Your task to perform on an android device: toggle translation in the chrome app Image 0: 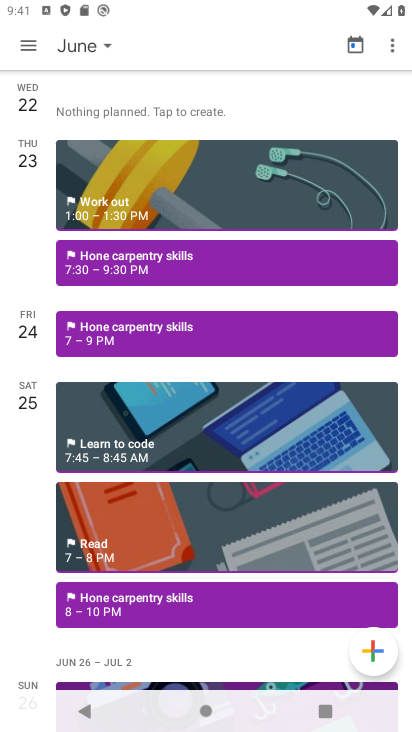
Step 0: press home button
Your task to perform on an android device: toggle translation in the chrome app Image 1: 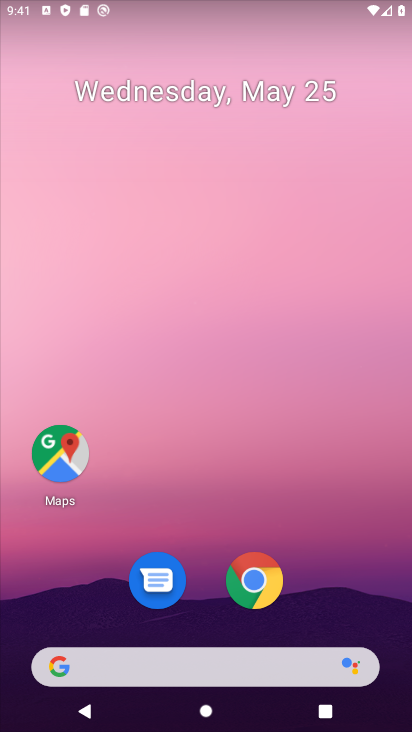
Step 1: click (251, 572)
Your task to perform on an android device: toggle translation in the chrome app Image 2: 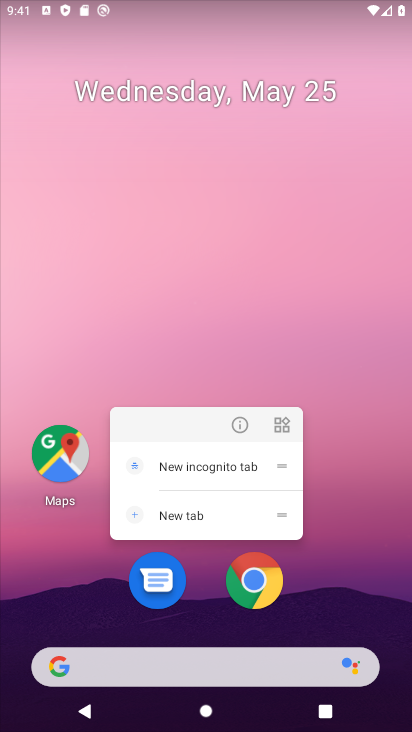
Step 2: click (269, 590)
Your task to perform on an android device: toggle translation in the chrome app Image 3: 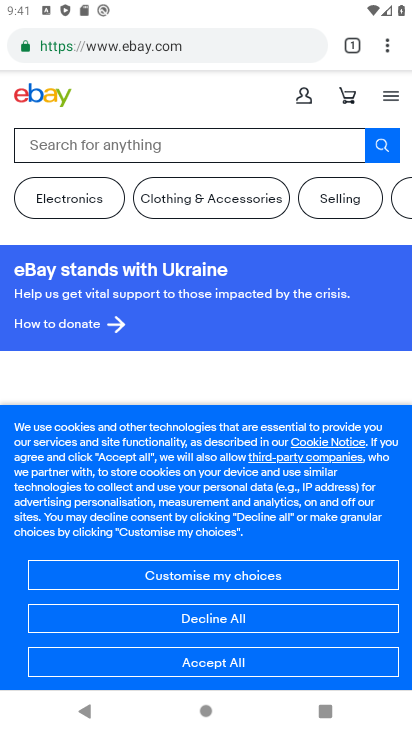
Step 3: click (380, 44)
Your task to perform on an android device: toggle translation in the chrome app Image 4: 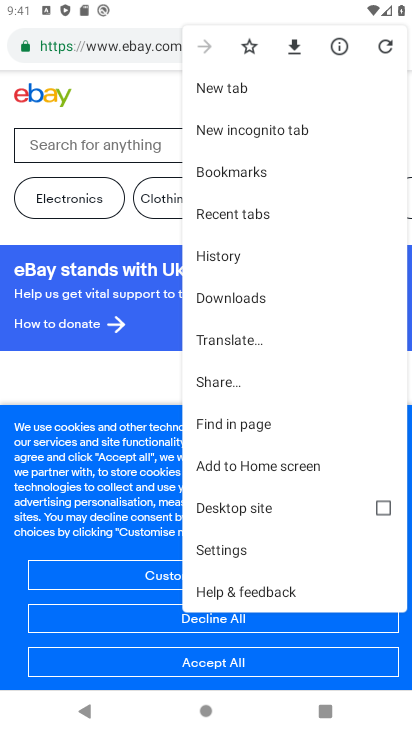
Step 4: click (252, 340)
Your task to perform on an android device: toggle translation in the chrome app Image 5: 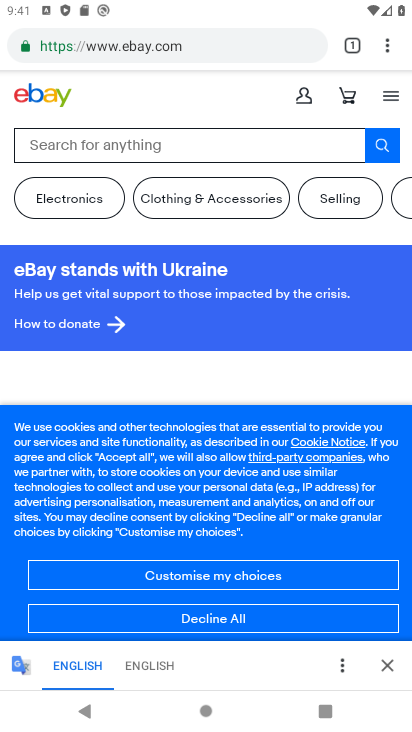
Step 5: click (393, 47)
Your task to perform on an android device: toggle translation in the chrome app Image 6: 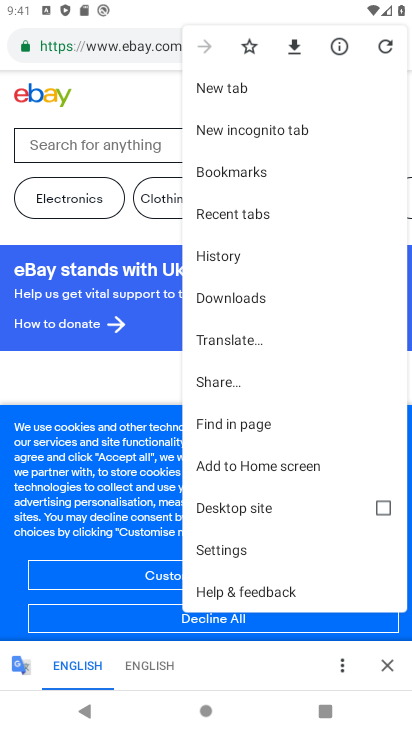
Step 6: click (236, 543)
Your task to perform on an android device: toggle translation in the chrome app Image 7: 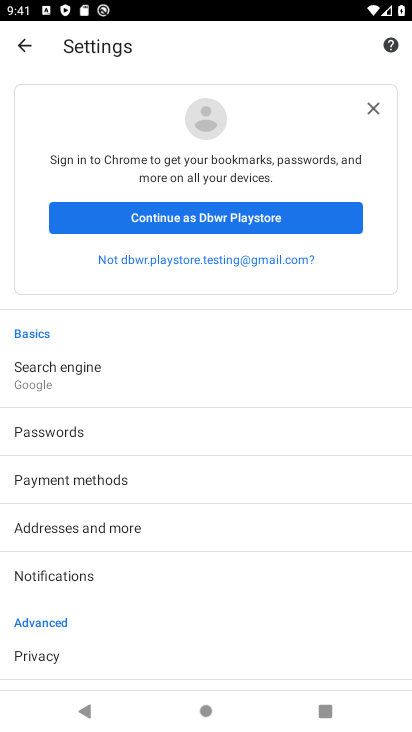
Step 7: drag from (39, 389) to (151, 114)
Your task to perform on an android device: toggle translation in the chrome app Image 8: 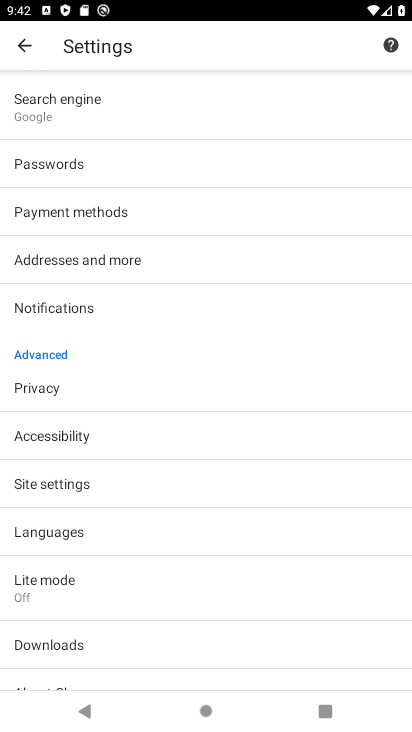
Step 8: click (85, 522)
Your task to perform on an android device: toggle translation in the chrome app Image 9: 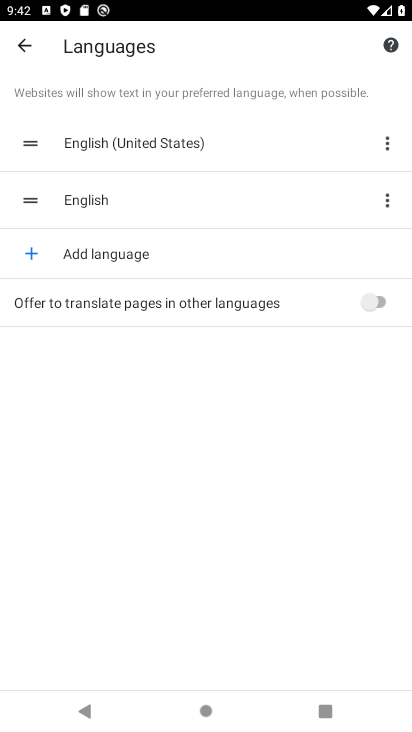
Step 9: click (368, 302)
Your task to perform on an android device: toggle translation in the chrome app Image 10: 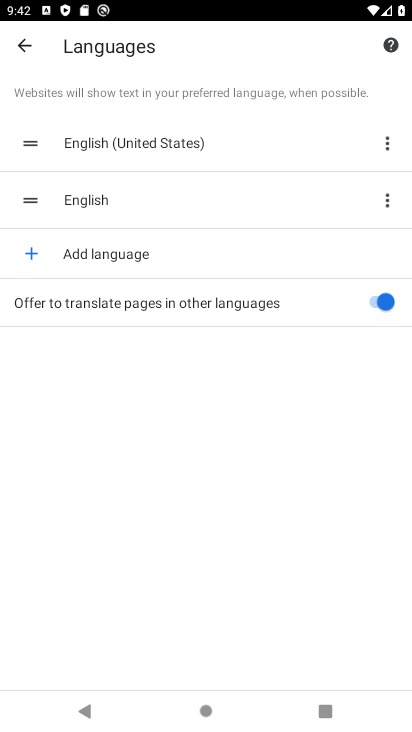
Step 10: task complete